Your task to perform on an android device: turn off location Image 0: 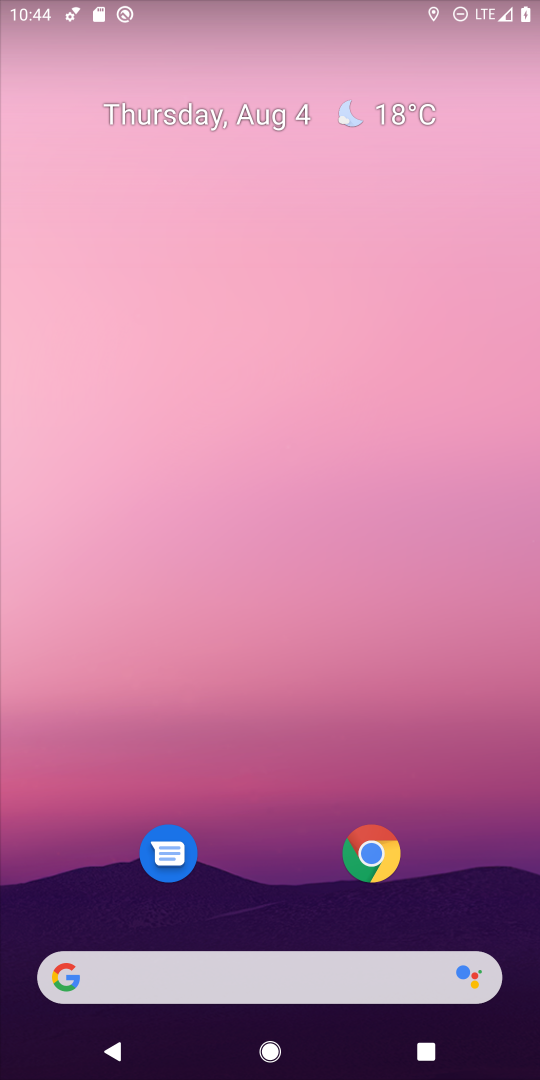
Step 0: drag from (282, 930) to (479, 609)
Your task to perform on an android device: turn off location Image 1: 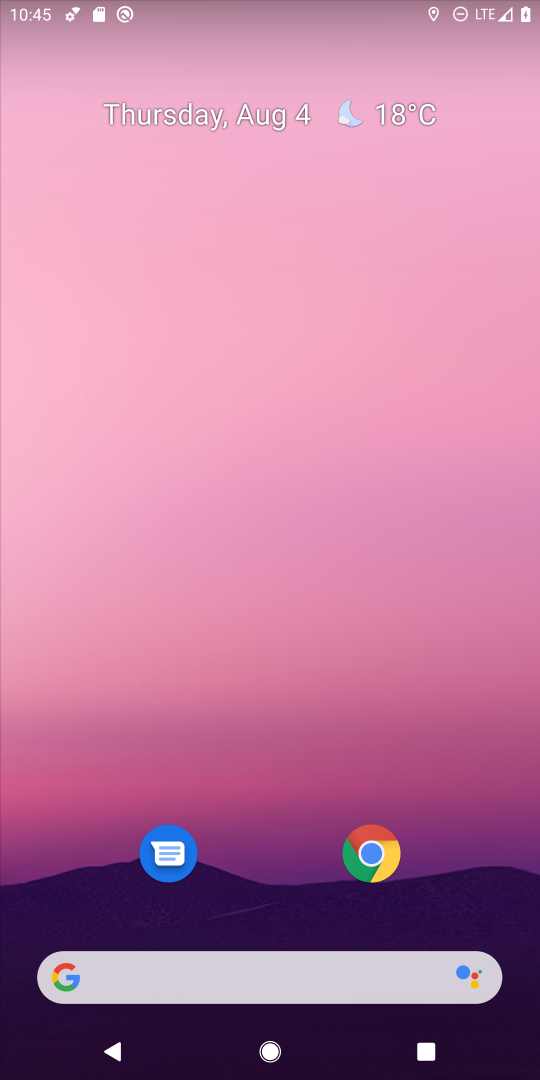
Step 1: click (277, 946)
Your task to perform on an android device: turn off location Image 2: 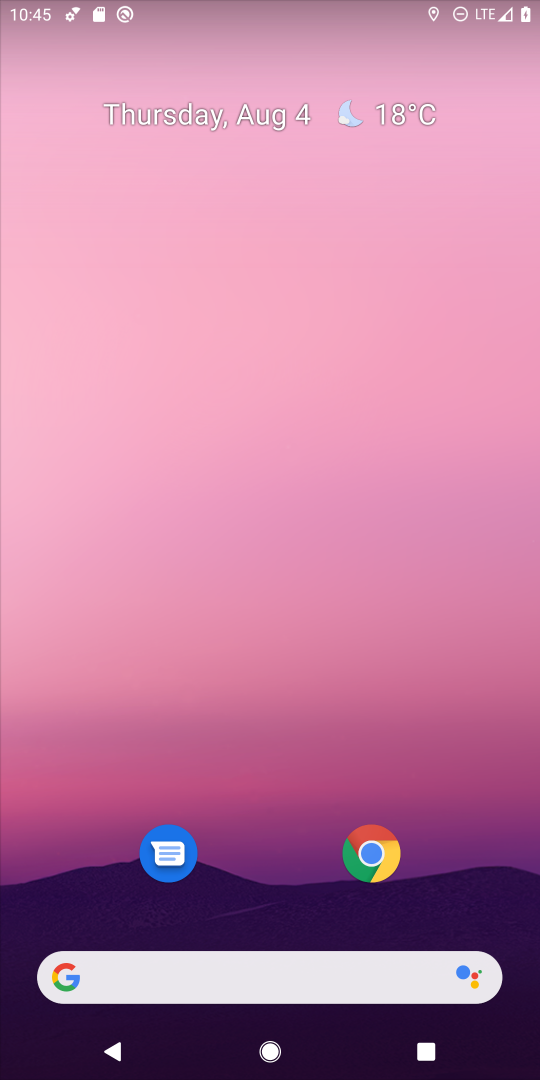
Step 2: drag from (278, 947) to (536, 726)
Your task to perform on an android device: turn off location Image 3: 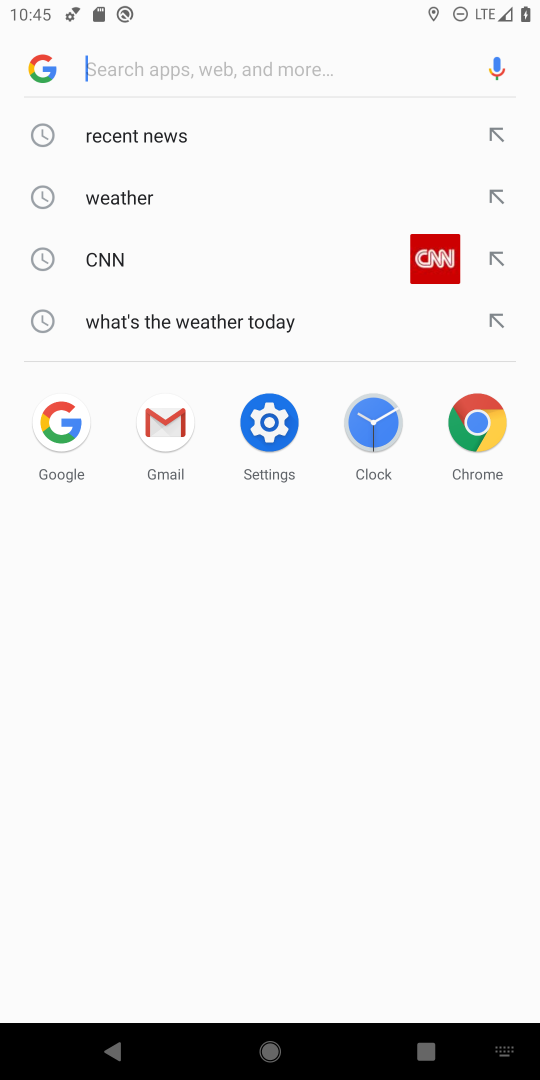
Step 3: press back button
Your task to perform on an android device: turn off location Image 4: 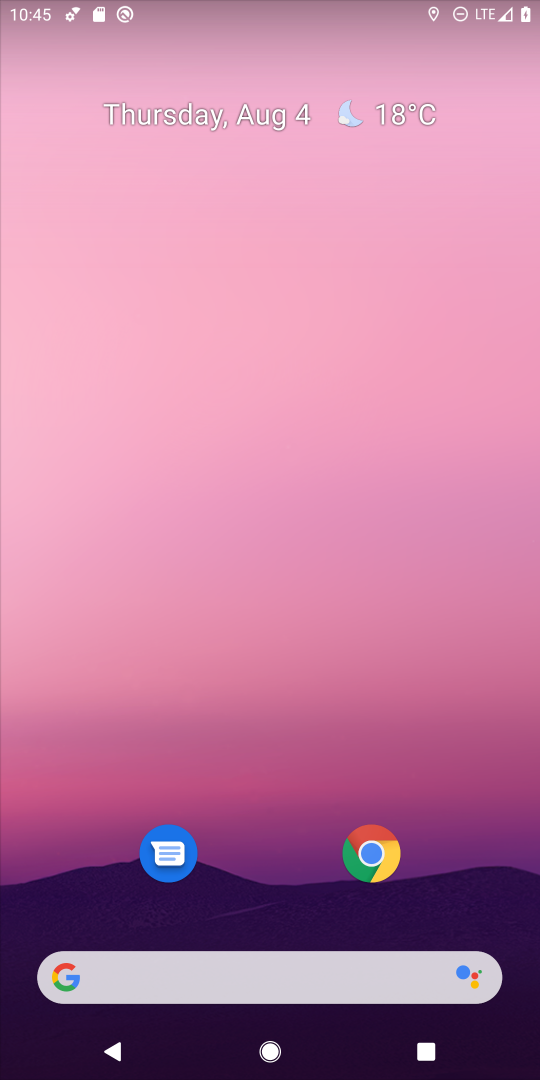
Step 4: drag from (304, 934) to (233, 130)
Your task to perform on an android device: turn off location Image 5: 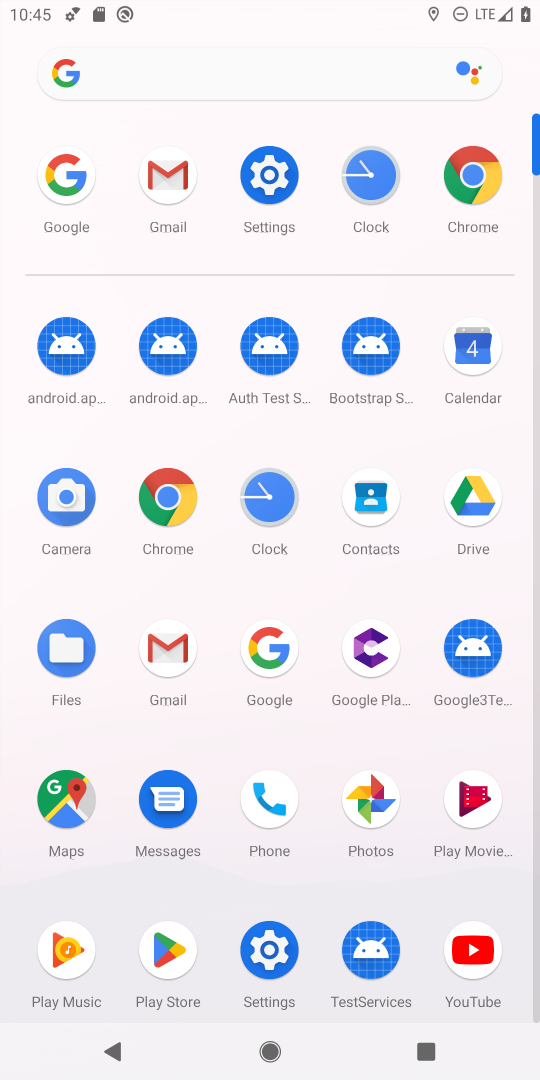
Step 5: click (264, 173)
Your task to perform on an android device: turn off location Image 6: 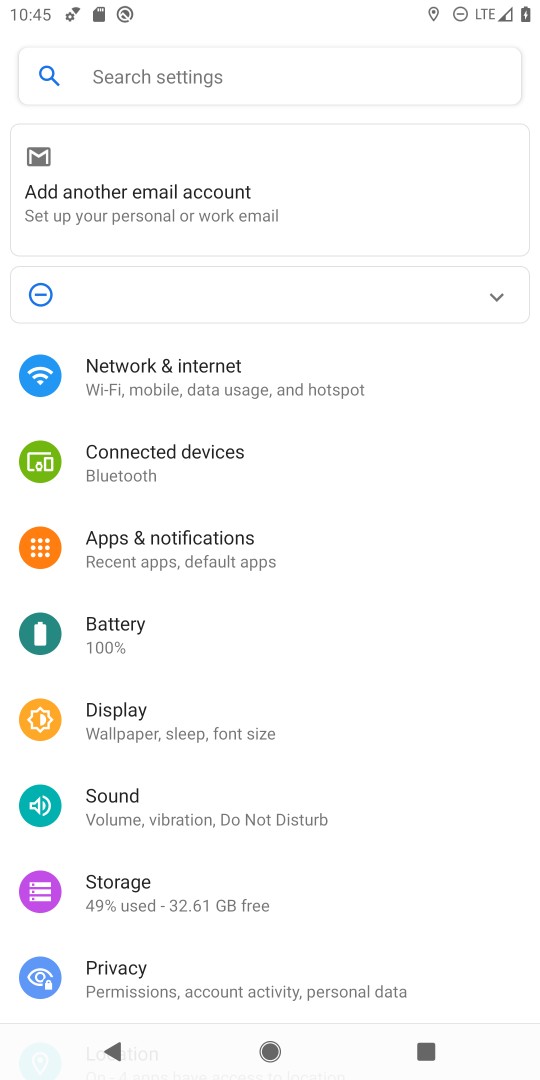
Step 6: drag from (219, 933) to (181, 303)
Your task to perform on an android device: turn off location Image 7: 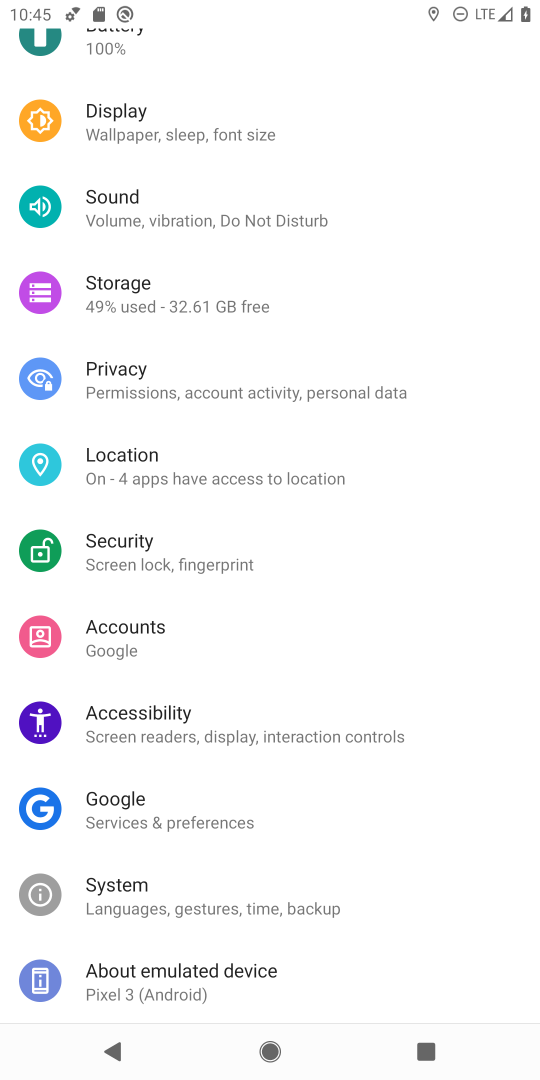
Step 7: click (152, 462)
Your task to perform on an android device: turn off location Image 8: 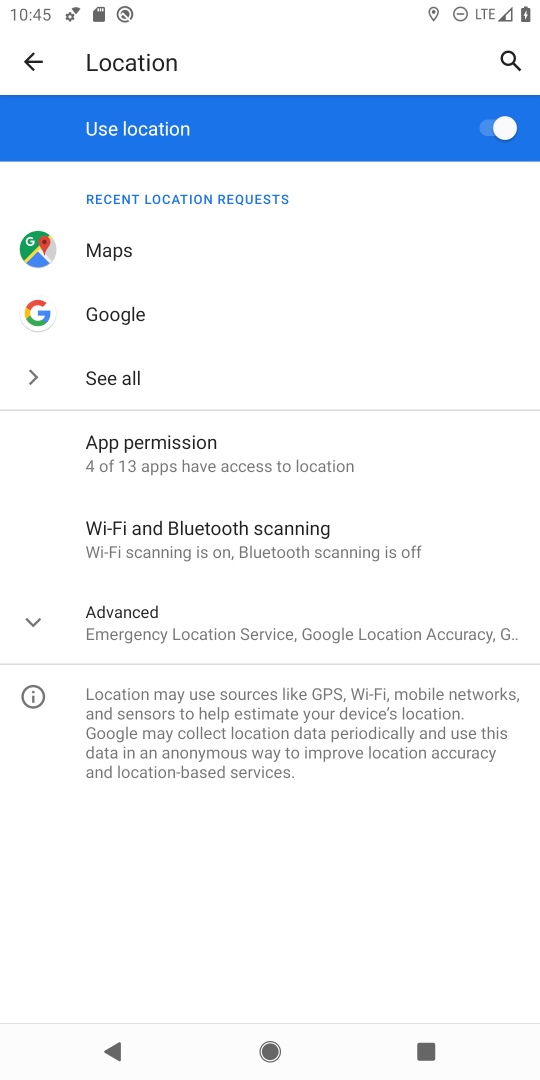
Step 8: click (487, 134)
Your task to perform on an android device: turn off location Image 9: 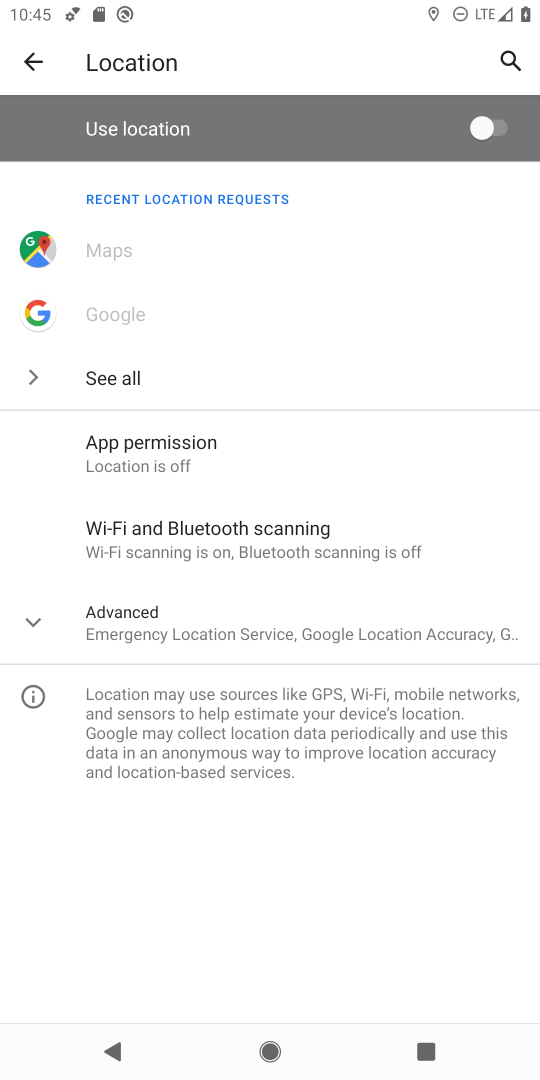
Step 9: task complete